Your task to perform on an android device: set the stopwatch Image 0: 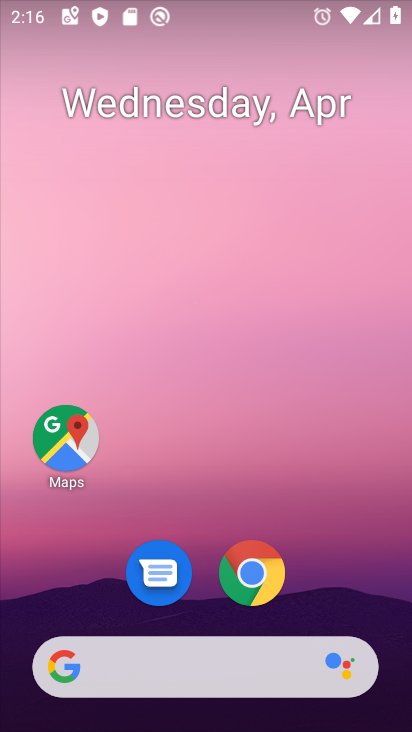
Step 0: drag from (342, 573) to (349, 170)
Your task to perform on an android device: set the stopwatch Image 1: 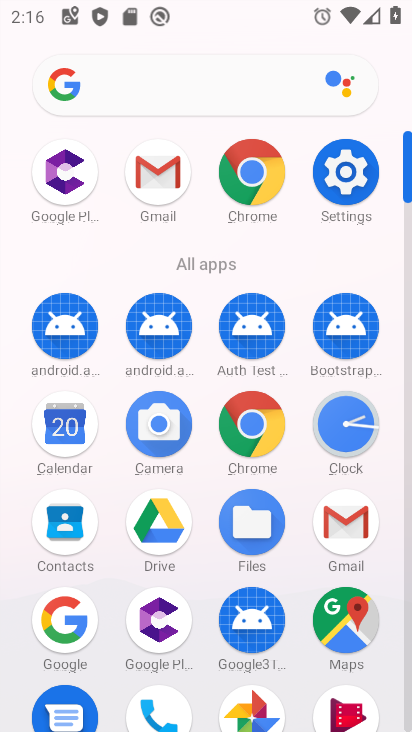
Step 1: click (334, 423)
Your task to perform on an android device: set the stopwatch Image 2: 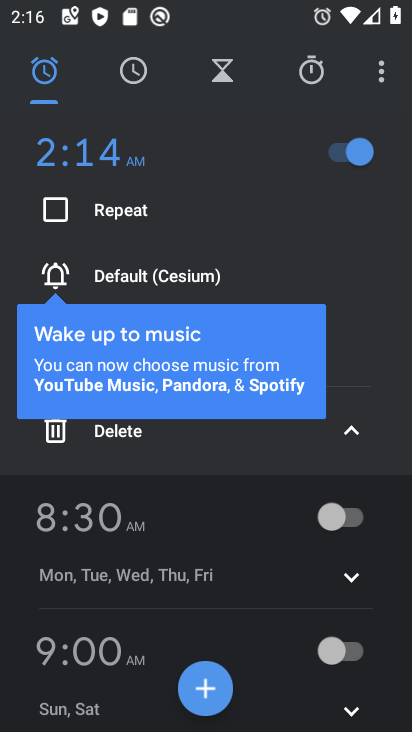
Step 2: click (317, 70)
Your task to perform on an android device: set the stopwatch Image 3: 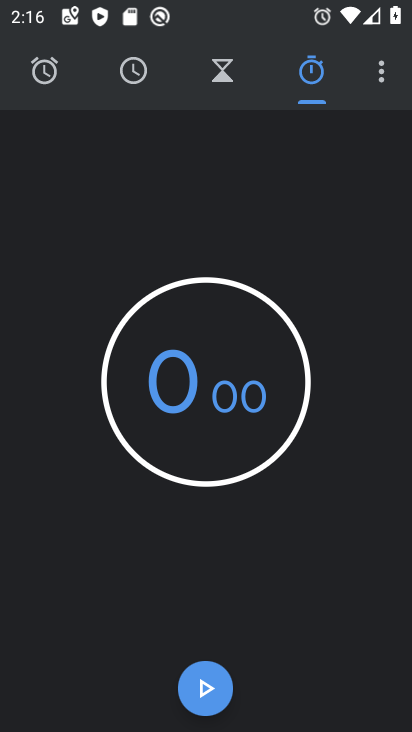
Step 3: click (219, 685)
Your task to perform on an android device: set the stopwatch Image 4: 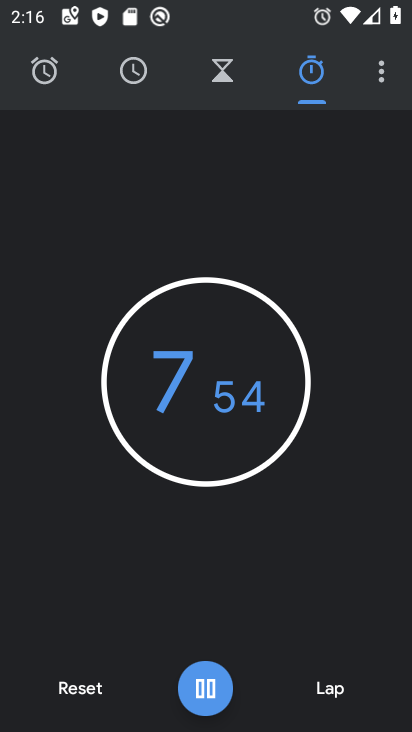
Step 4: task complete